Your task to perform on an android device: toggle airplane mode Image 0: 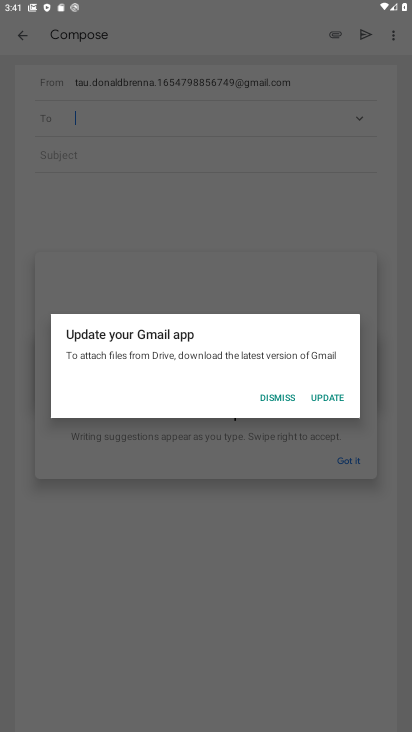
Step 0: drag from (219, 4) to (250, 538)
Your task to perform on an android device: toggle airplane mode Image 1: 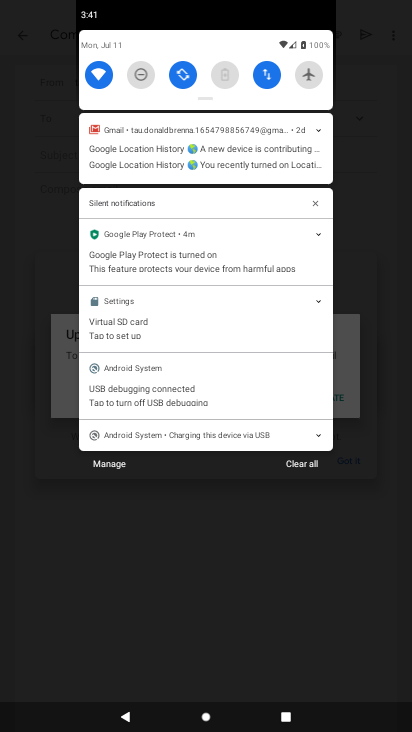
Step 1: click (301, 79)
Your task to perform on an android device: toggle airplane mode Image 2: 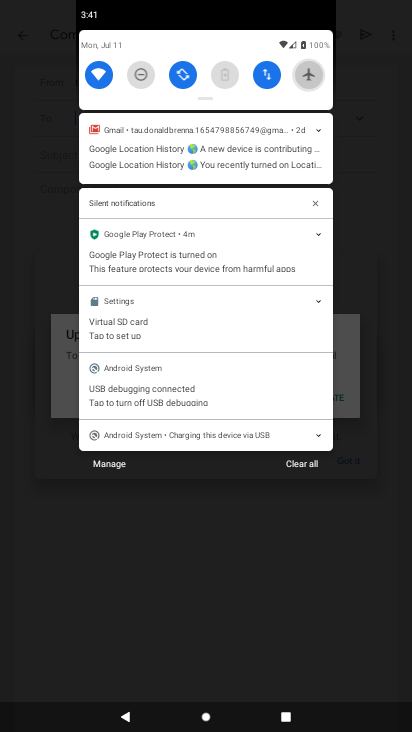
Step 2: click (301, 79)
Your task to perform on an android device: toggle airplane mode Image 3: 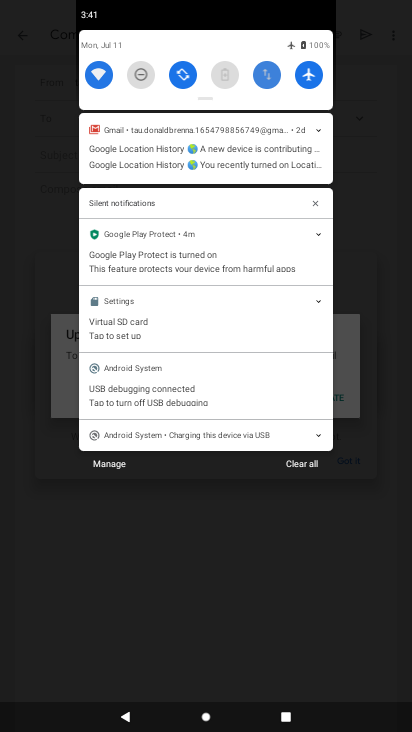
Step 3: click (301, 79)
Your task to perform on an android device: toggle airplane mode Image 4: 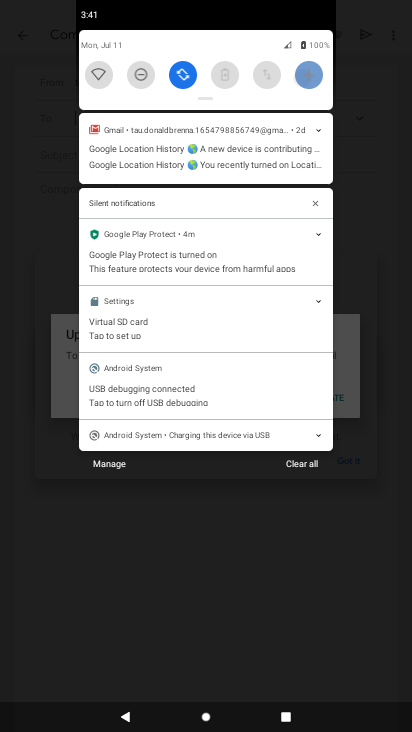
Step 4: click (301, 79)
Your task to perform on an android device: toggle airplane mode Image 5: 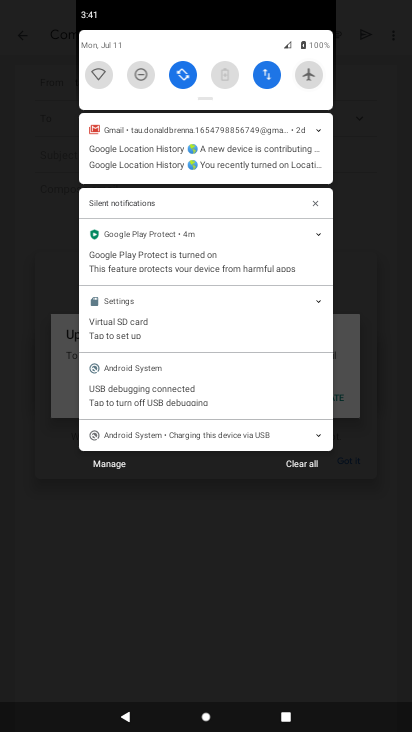
Step 5: click (301, 79)
Your task to perform on an android device: toggle airplane mode Image 6: 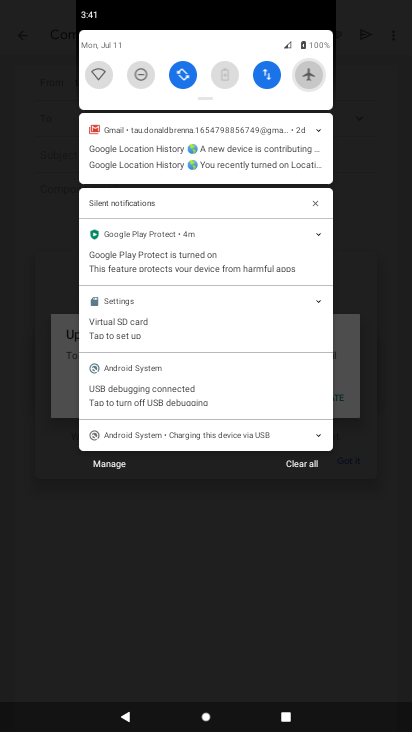
Step 6: click (301, 79)
Your task to perform on an android device: toggle airplane mode Image 7: 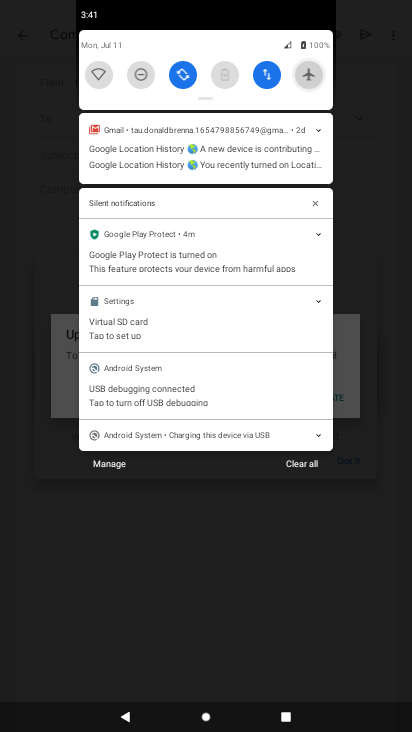
Step 7: click (301, 79)
Your task to perform on an android device: toggle airplane mode Image 8: 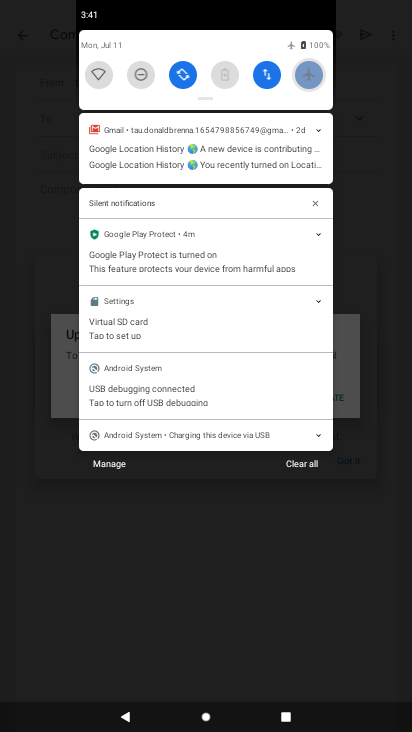
Step 8: click (301, 79)
Your task to perform on an android device: toggle airplane mode Image 9: 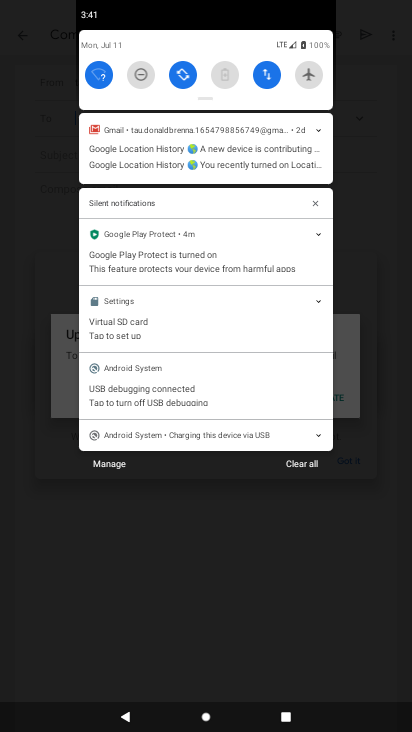
Step 9: task complete